Your task to perform on an android device: View the shopping cart on costco.com. Search for alienware aurora on costco.com, select the first entry, and add it to the cart. Image 0: 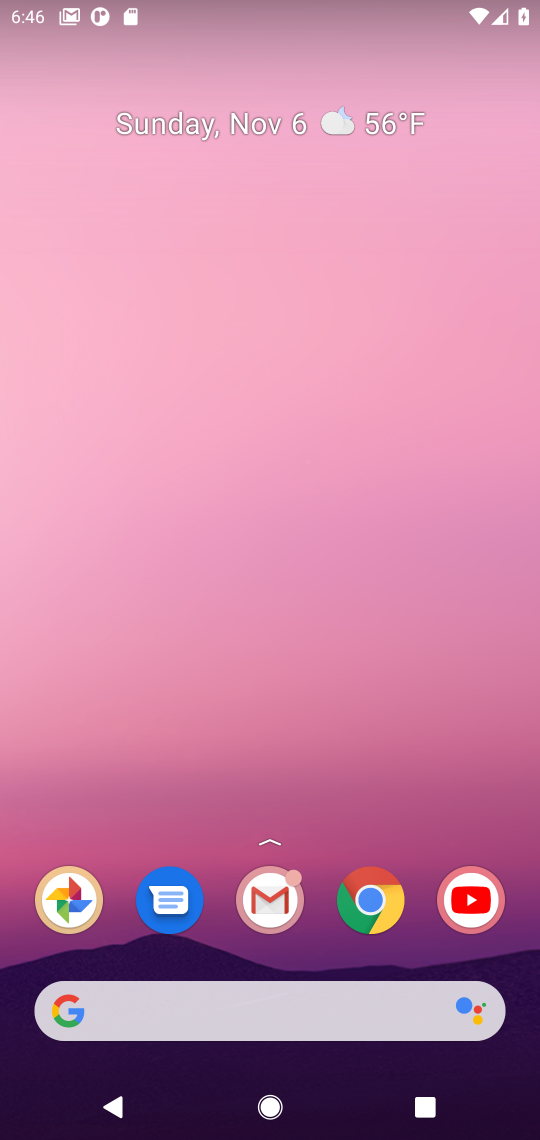
Step 0: click (539, 633)
Your task to perform on an android device: View the shopping cart on costco.com. Search for alienware aurora on costco.com, select the first entry, and add it to the cart. Image 1: 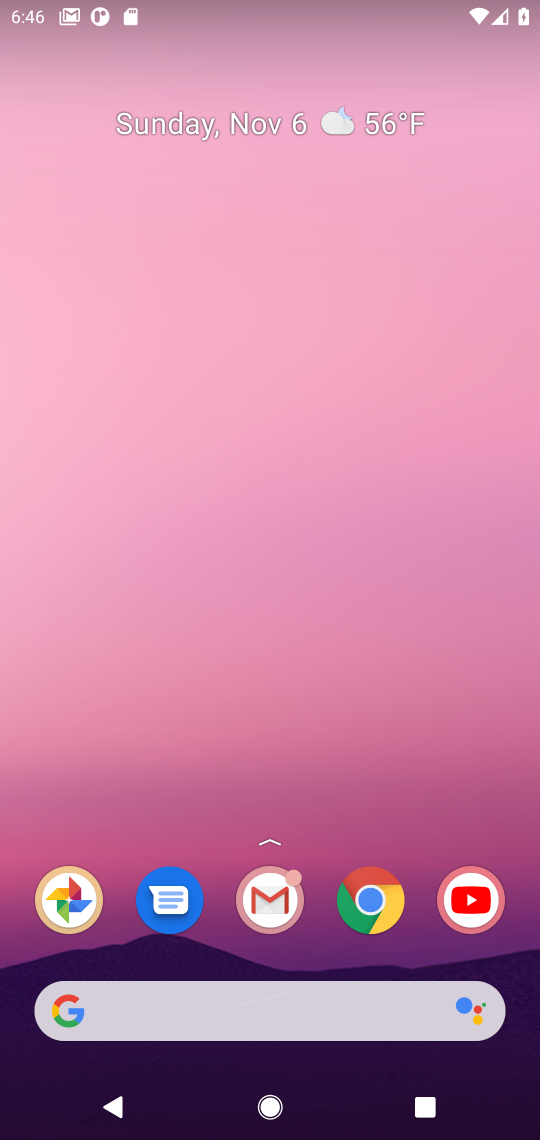
Step 1: drag from (334, 950) to (231, 111)
Your task to perform on an android device: View the shopping cart on costco.com. Search for alienware aurora on costco.com, select the first entry, and add it to the cart. Image 2: 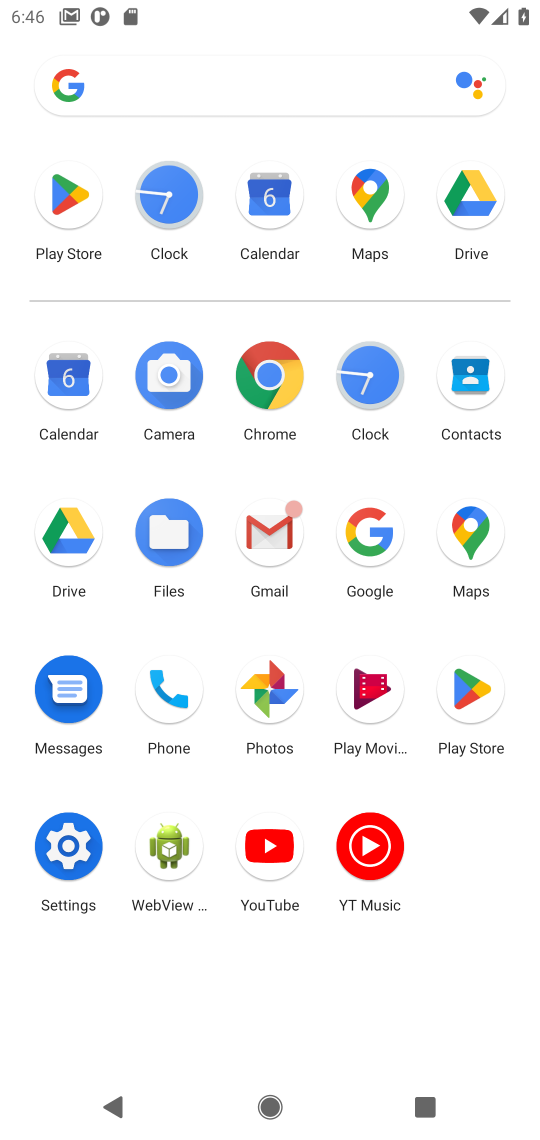
Step 2: click (267, 384)
Your task to perform on an android device: View the shopping cart on costco.com. Search for alienware aurora on costco.com, select the first entry, and add it to the cart. Image 3: 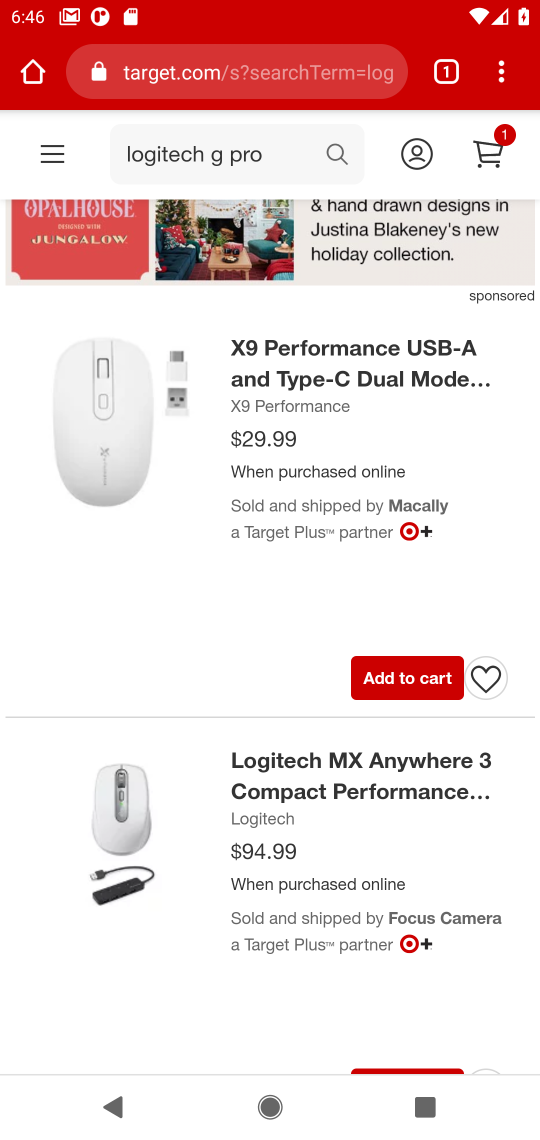
Step 3: click (315, 59)
Your task to perform on an android device: View the shopping cart on costco.com. Search for alienware aurora on costco.com, select the first entry, and add it to the cart. Image 4: 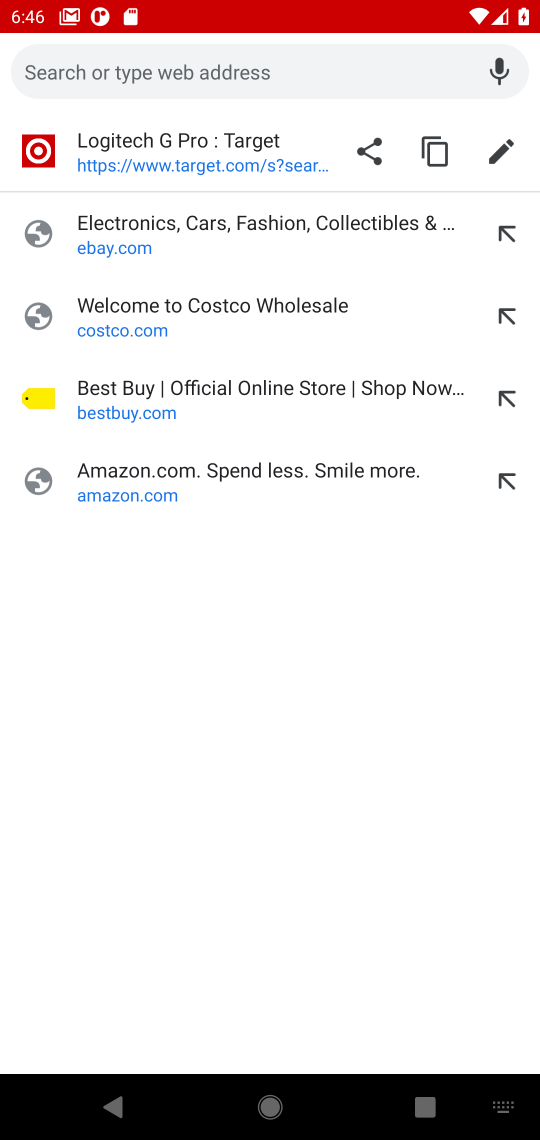
Step 4: type "costco.com"
Your task to perform on an android device: View the shopping cart on costco.com. Search for alienware aurora on costco.com, select the first entry, and add it to the cart. Image 5: 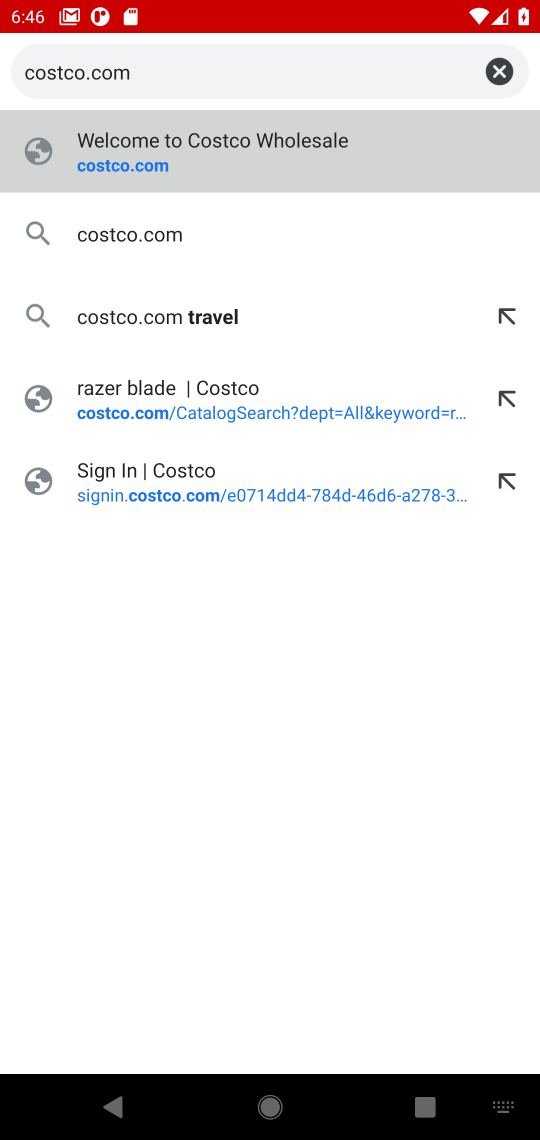
Step 5: press enter
Your task to perform on an android device: View the shopping cart on costco.com. Search for alienware aurora on costco.com, select the first entry, and add it to the cart. Image 6: 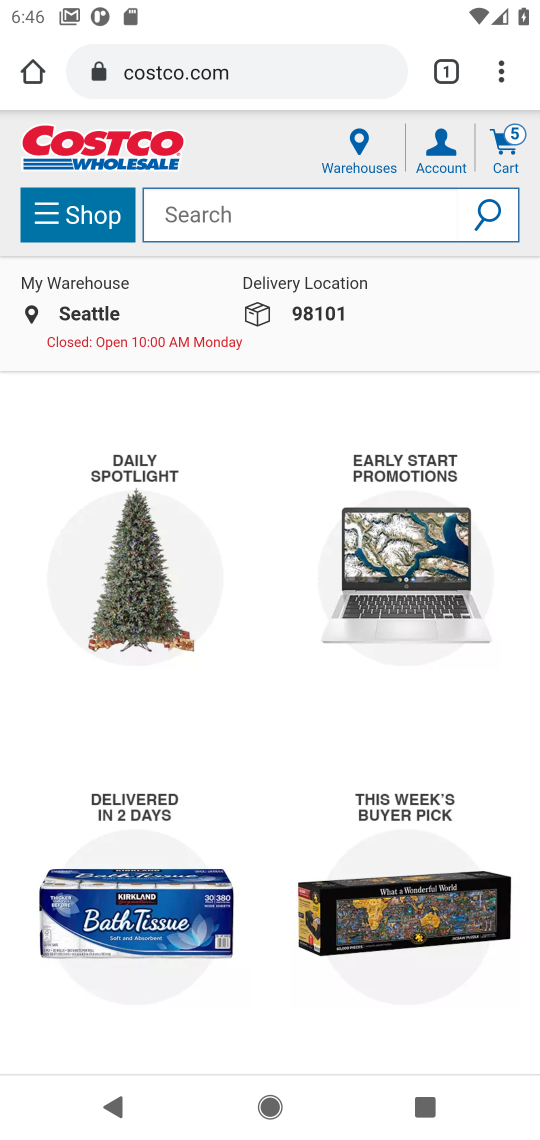
Step 6: click (508, 134)
Your task to perform on an android device: View the shopping cart on costco.com. Search for alienware aurora on costco.com, select the first entry, and add it to the cart. Image 7: 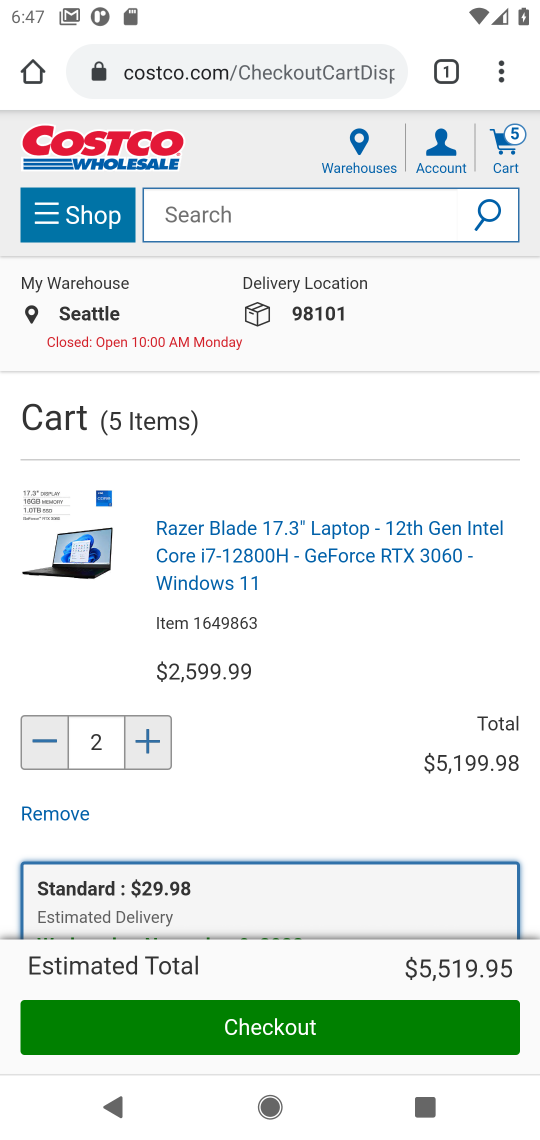
Step 7: click (363, 203)
Your task to perform on an android device: View the shopping cart on costco.com. Search for alienware aurora on costco.com, select the first entry, and add it to the cart. Image 8: 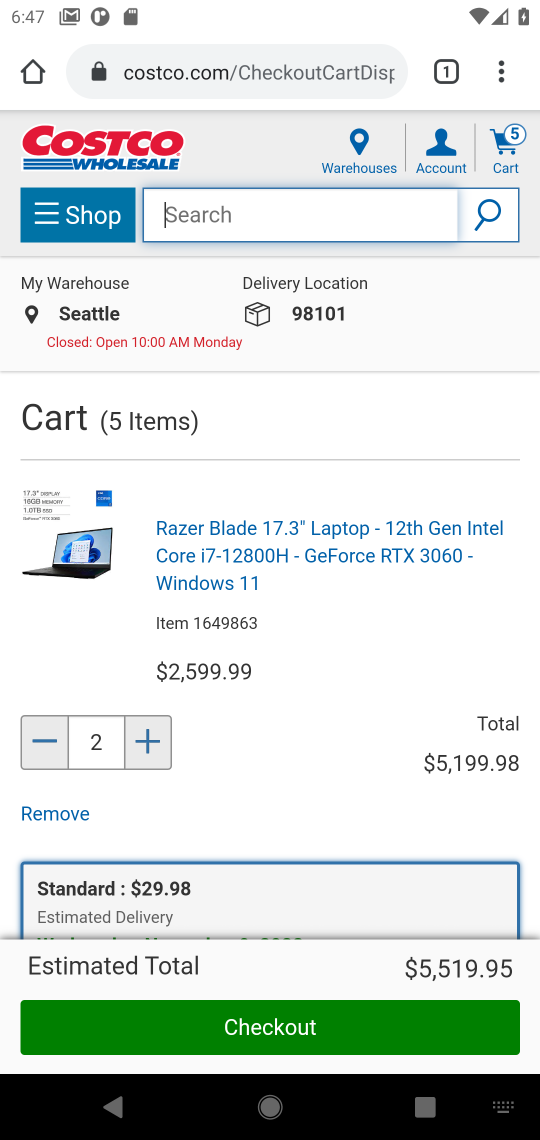
Step 8: type "alienware aurora"
Your task to perform on an android device: View the shopping cart on costco.com. Search for alienware aurora on costco.com, select the first entry, and add it to the cart. Image 9: 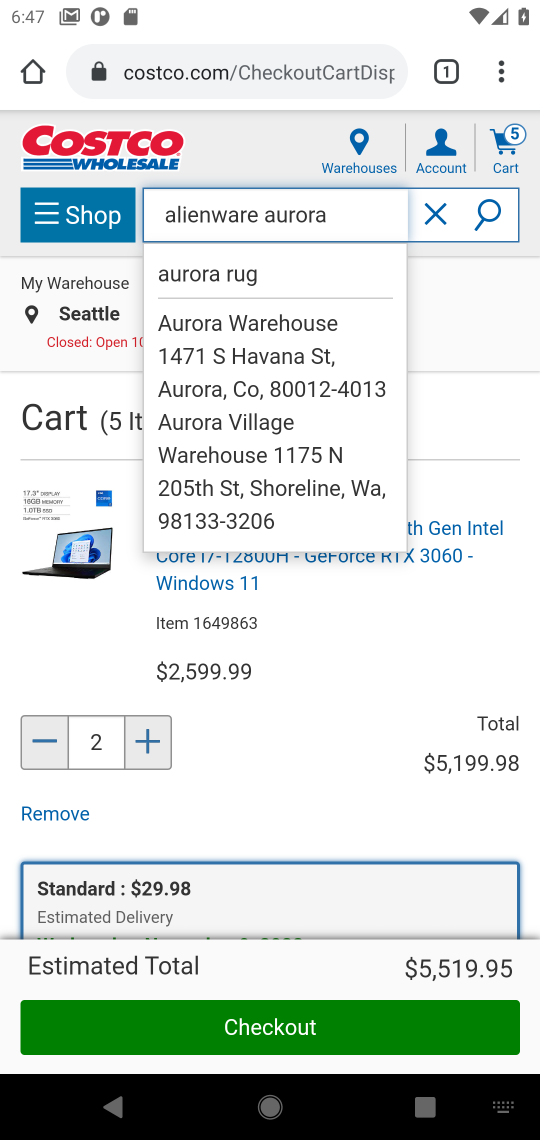
Step 9: press enter
Your task to perform on an android device: View the shopping cart on costco.com. Search for alienware aurora on costco.com, select the first entry, and add it to the cart. Image 10: 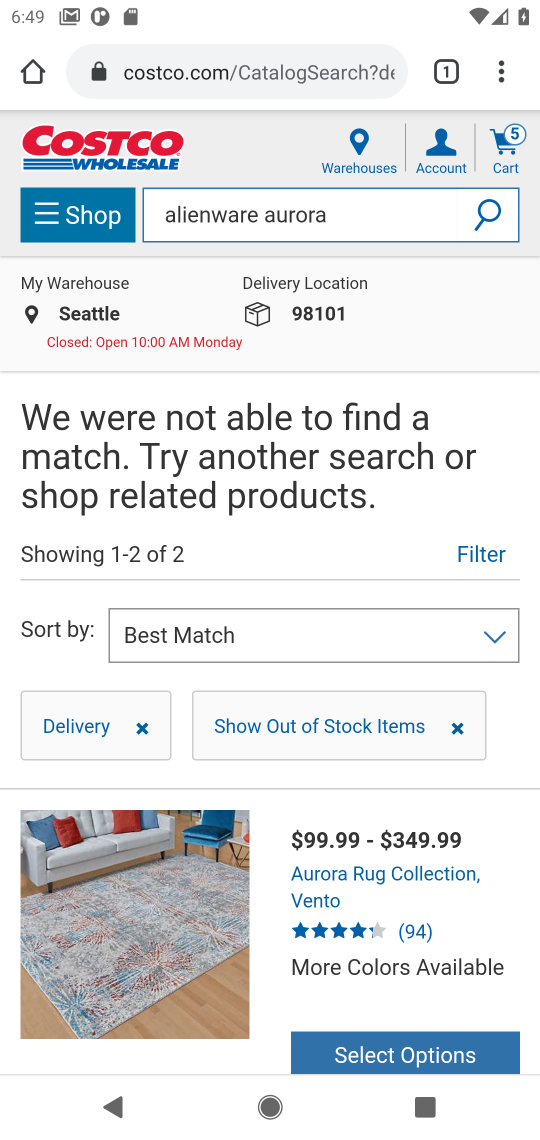
Step 10: task complete